Your task to perform on an android device: add a contact Image 0: 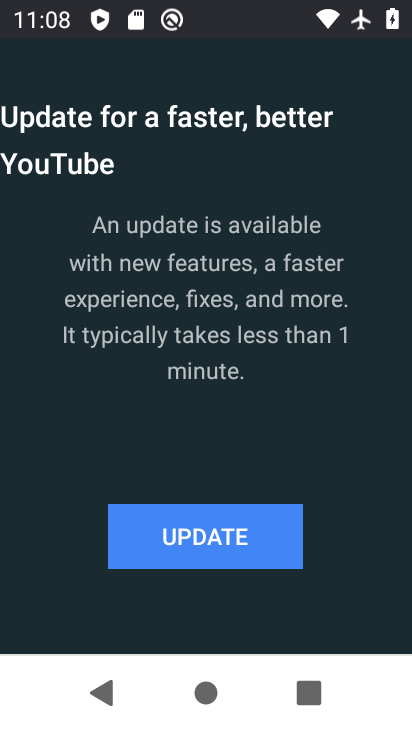
Step 0: press home button
Your task to perform on an android device: add a contact Image 1: 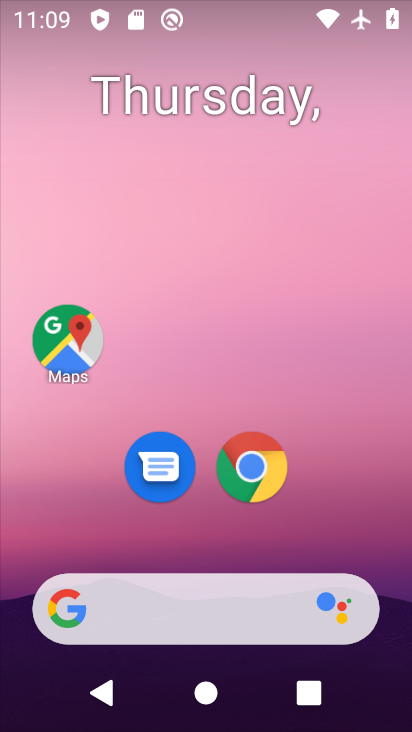
Step 1: drag from (324, 547) to (324, 10)
Your task to perform on an android device: add a contact Image 2: 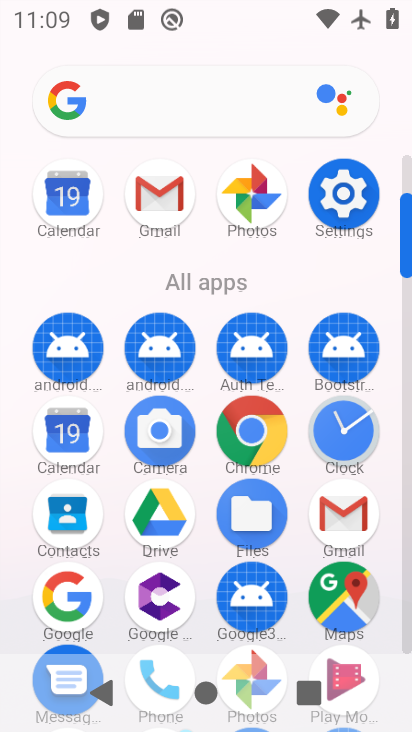
Step 2: click (61, 520)
Your task to perform on an android device: add a contact Image 3: 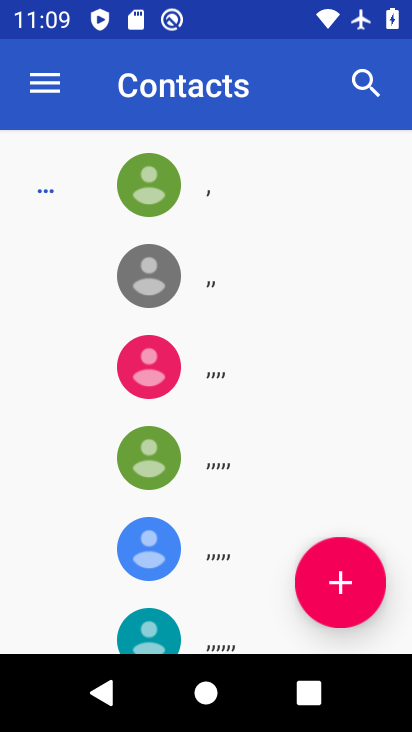
Step 3: click (350, 594)
Your task to perform on an android device: add a contact Image 4: 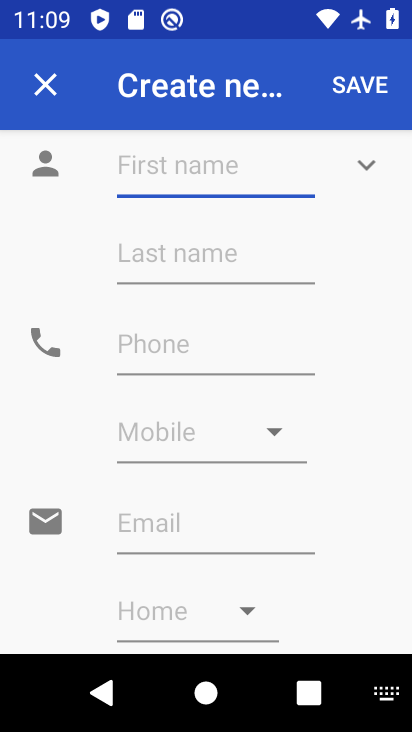
Step 4: click (137, 184)
Your task to perform on an android device: add a contact Image 5: 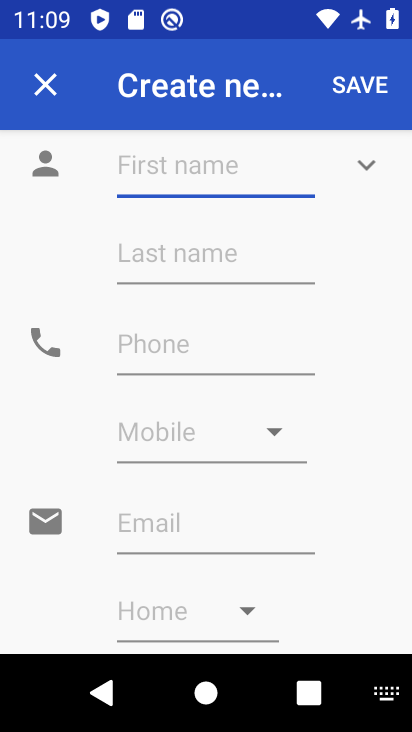
Step 5: type "rimpy"
Your task to perform on an android device: add a contact Image 6: 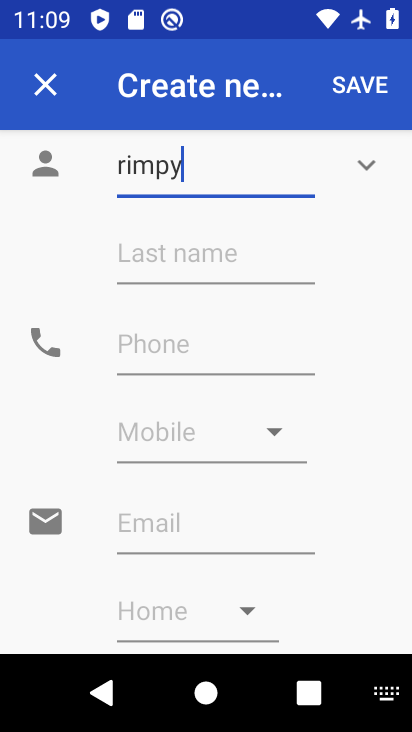
Step 6: click (181, 346)
Your task to perform on an android device: add a contact Image 7: 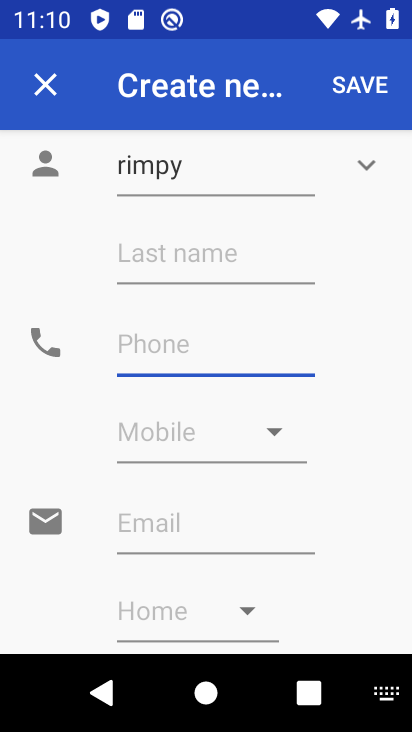
Step 7: type "987765444"
Your task to perform on an android device: add a contact Image 8: 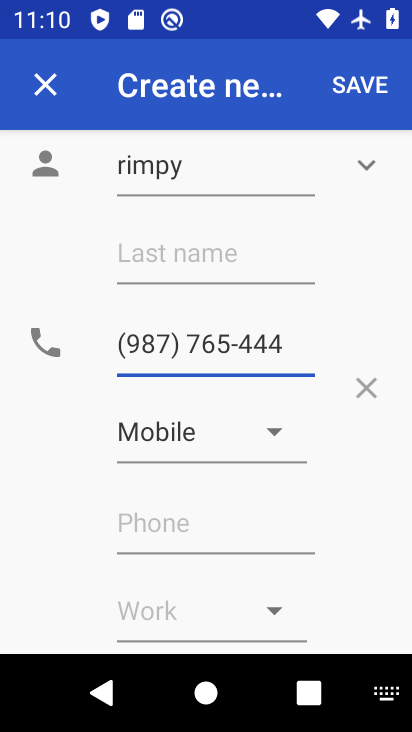
Step 8: click (371, 81)
Your task to perform on an android device: add a contact Image 9: 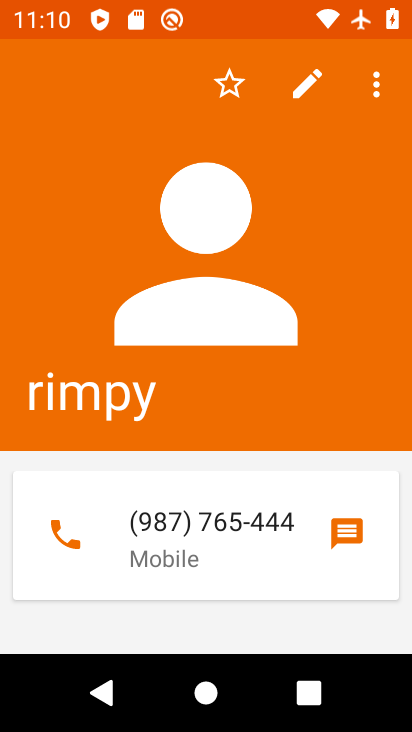
Step 9: task complete